Your task to perform on an android device: set the timer Image 0: 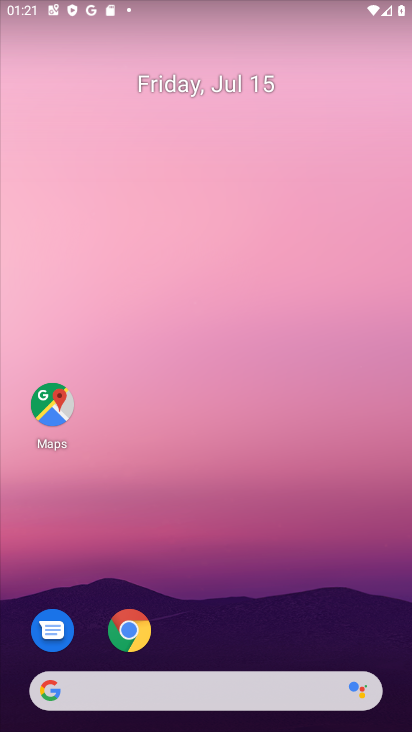
Step 0: drag from (311, 637) to (265, 89)
Your task to perform on an android device: set the timer Image 1: 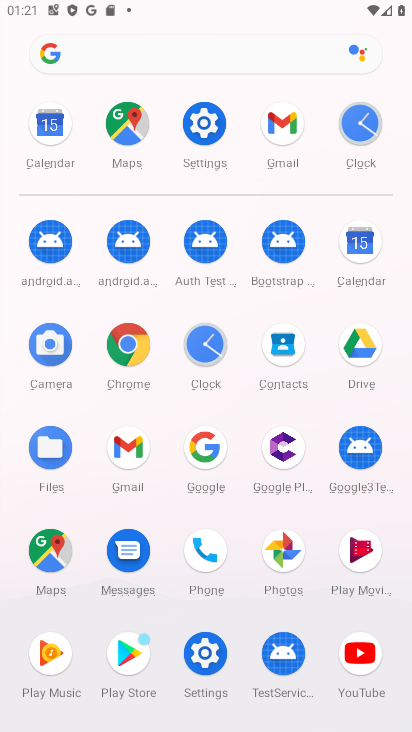
Step 1: click (373, 145)
Your task to perform on an android device: set the timer Image 2: 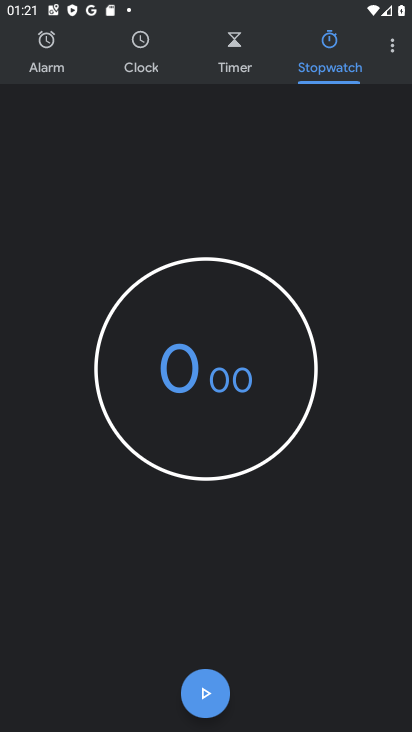
Step 2: click (236, 59)
Your task to perform on an android device: set the timer Image 3: 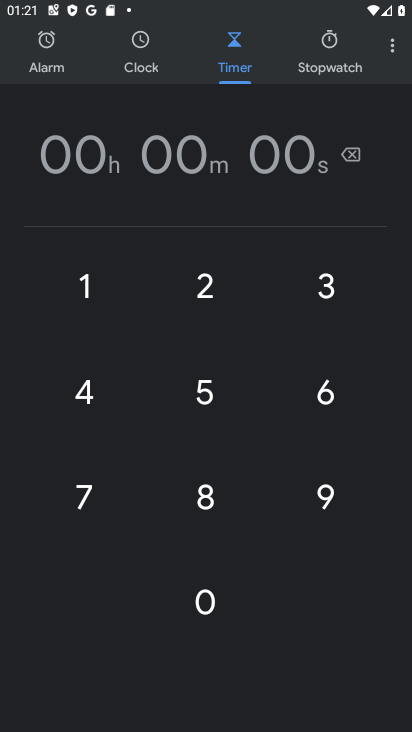
Step 3: task complete